Your task to perform on an android device: Go to Yahoo.com Image 0: 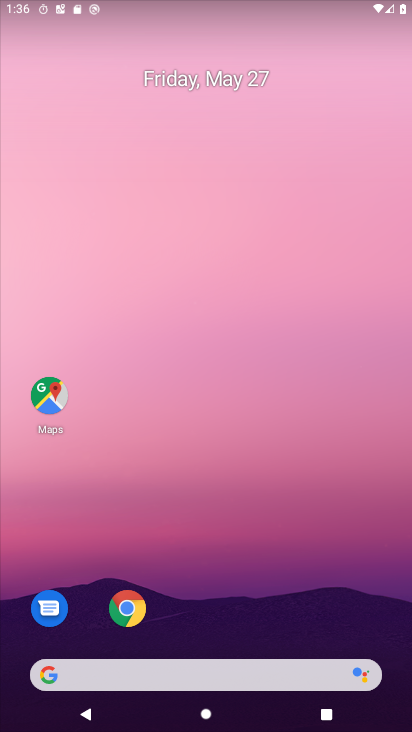
Step 0: click (126, 614)
Your task to perform on an android device: Go to Yahoo.com Image 1: 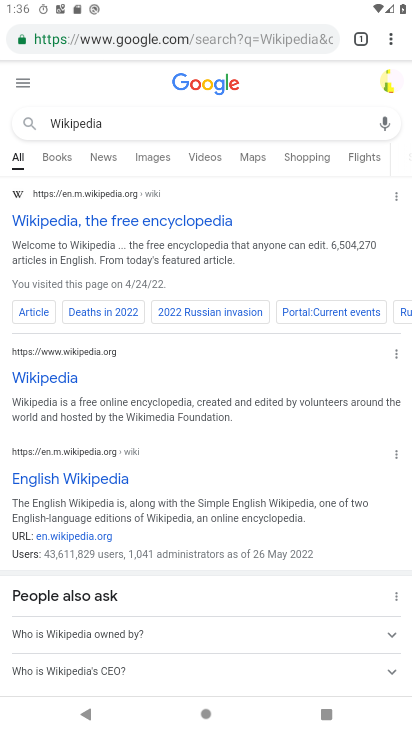
Step 1: click (105, 125)
Your task to perform on an android device: Go to Yahoo.com Image 2: 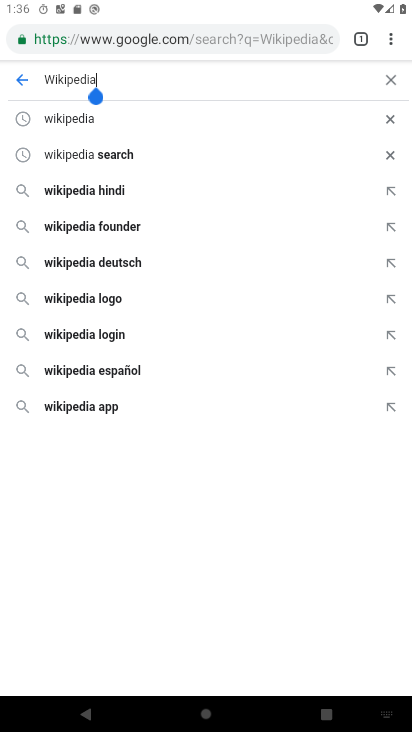
Step 2: click (330, 35)
Your task to perform on an android device: Go to Yahoo.com Image 3: 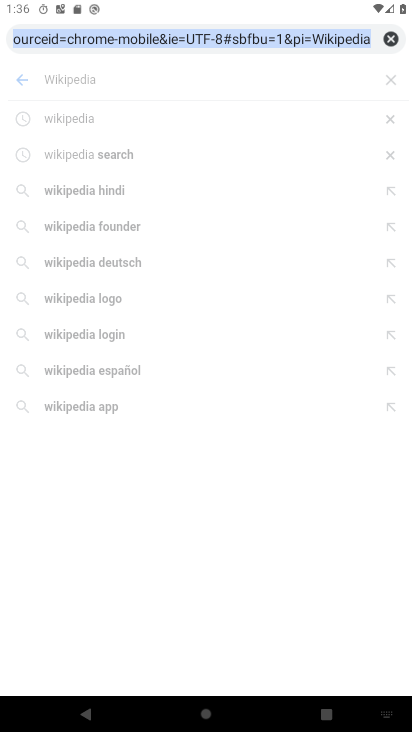
Step 3: click (393, 34)
Your task to perform on an android device: Go to Yahoo.com Image 4: 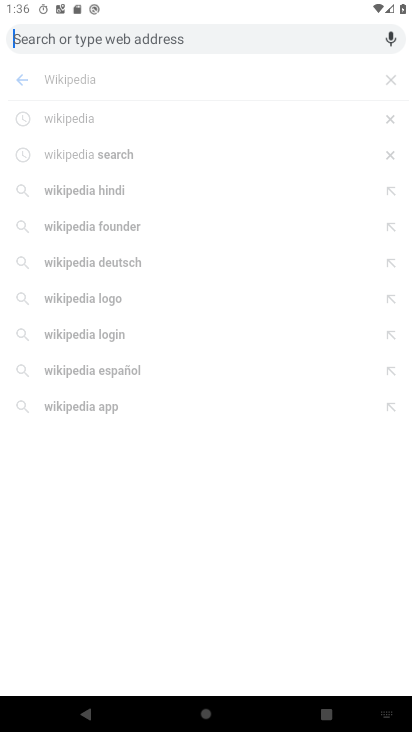
Step 4: type "Yahoo.com"
Your task to perform on an android device: Go to Yahoo.com Image 5: 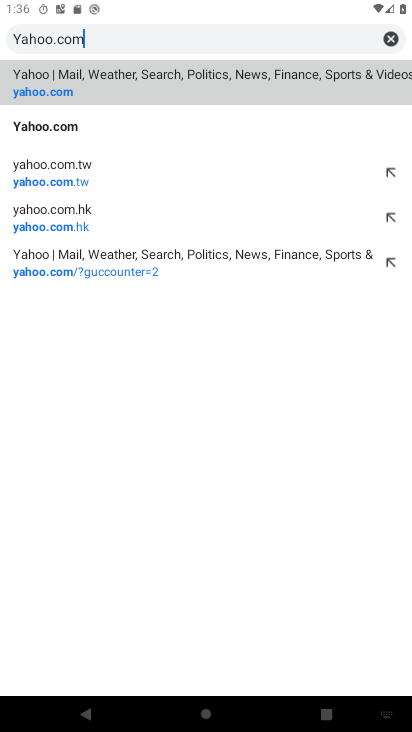
Step 5: click (59, 124)
Your task to perform on an android device: Go to Yahoo.com Image 6: 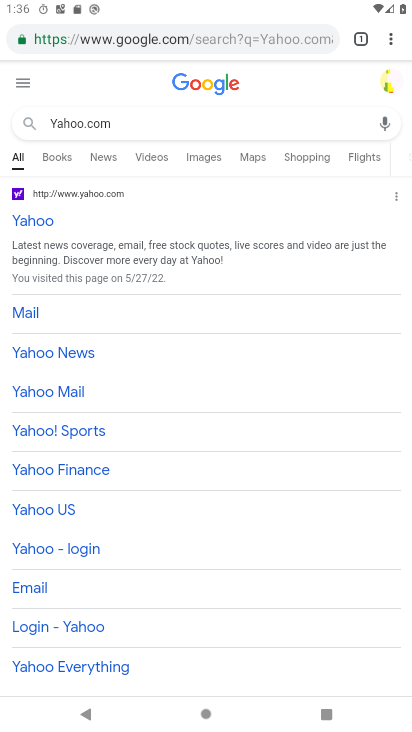
Step 6: task complete